Your task to perform on an android device: allow notifications from all sites in the chrome app Image 0: 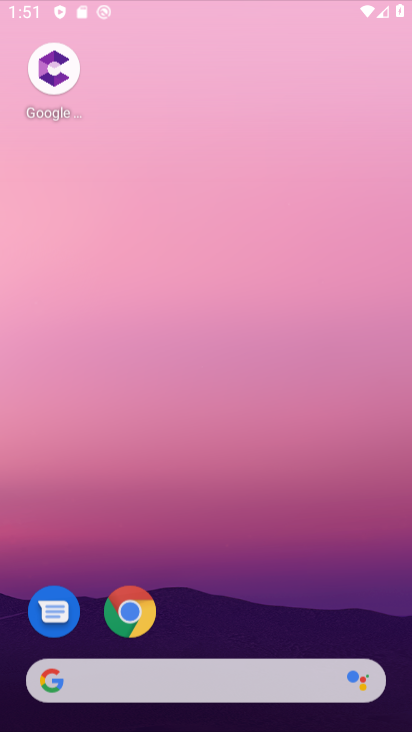
Step 0: click (158, 149)
Your task to perform on an android device: allow notifications from all sites in the chrome app Image 1: 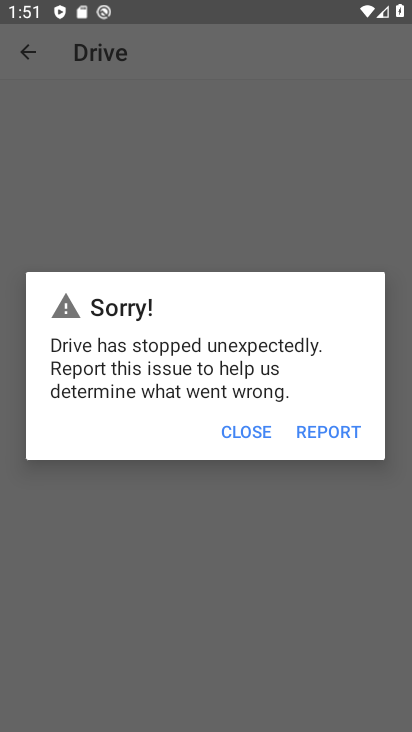
Step 1: press home button
Your task to perform on an android device: allow notifications from all sites in the chrome app Image 2: 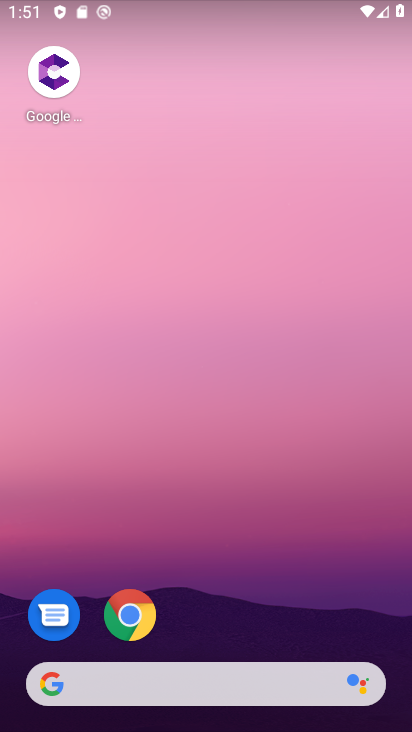
Step 2: click (144, 616)
Your task to perform on an android device: allow notifications from all sites in the chrome app Image 3: 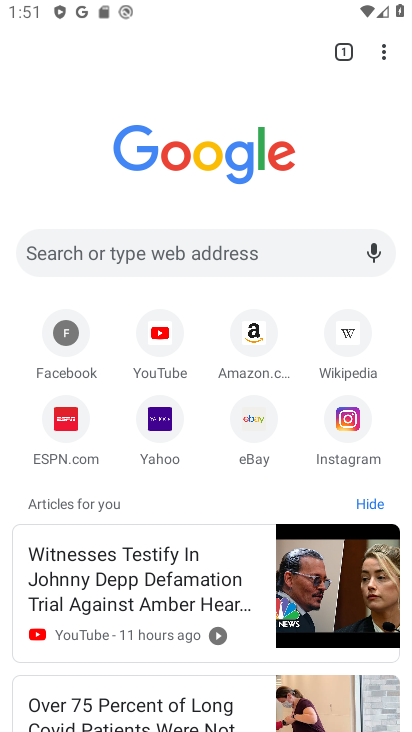
Step 3: click (381, 44)
Your task to perform on an android device: allow notifications from all sites in the chrome app Image 4: 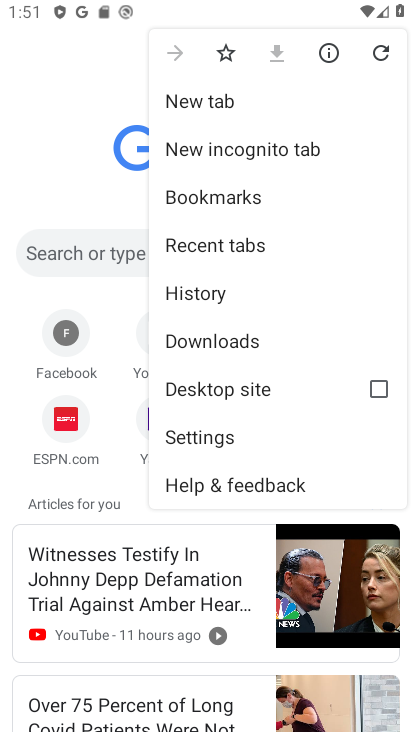
Step 4: click (281, 432)
Your task to perform on an android device: allow notifications from all sites in the chrome app Image 5: 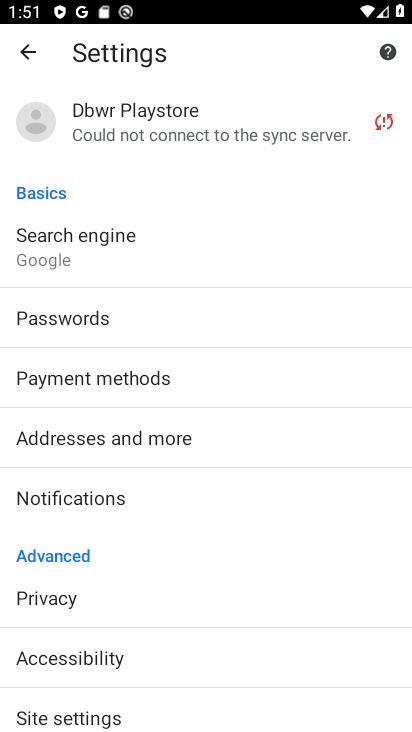
Step 5: drag from (229, 663) to (186, 250)
Your task to perform on an android device: allow notifications from all sites in the chrome app Image 6: 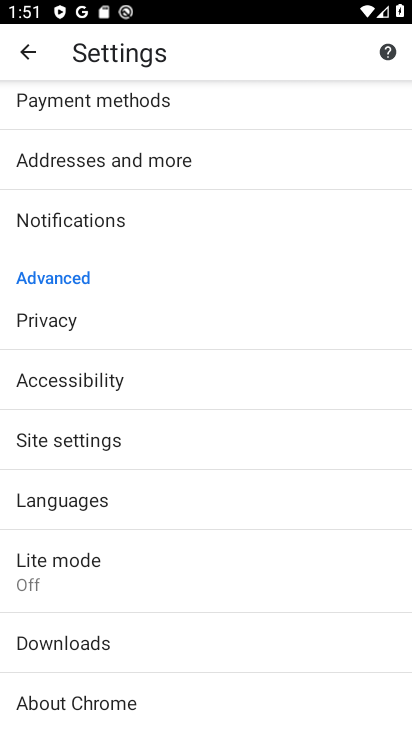
Step 6: click (173, 448)
Your task to perform on an android device: allow notifications from all sites in the chrome app Image 7: 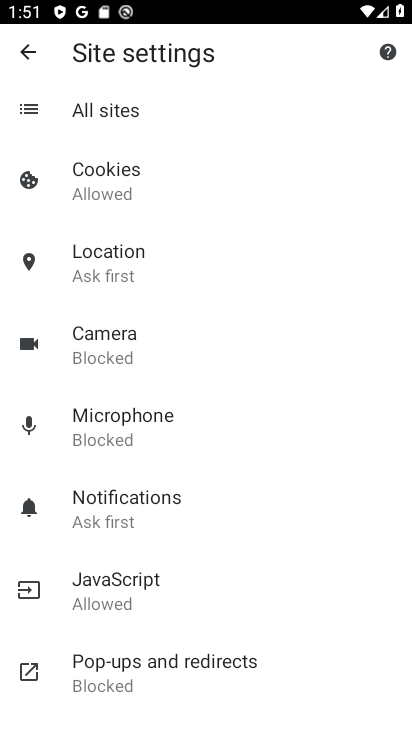
Step 7: click (186, 501)
Your task to perform on an android device: allow notifications from all sites in the chrome app Image 8: 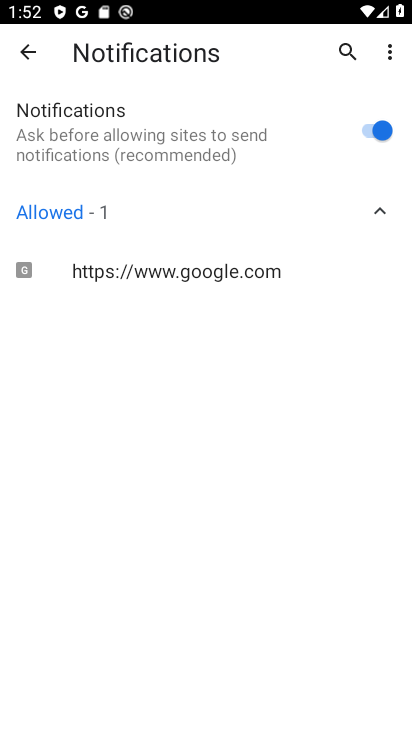
Step 8: task complete